Your task to perform on an android device: move an email to a new category in the gmail app Image 0: 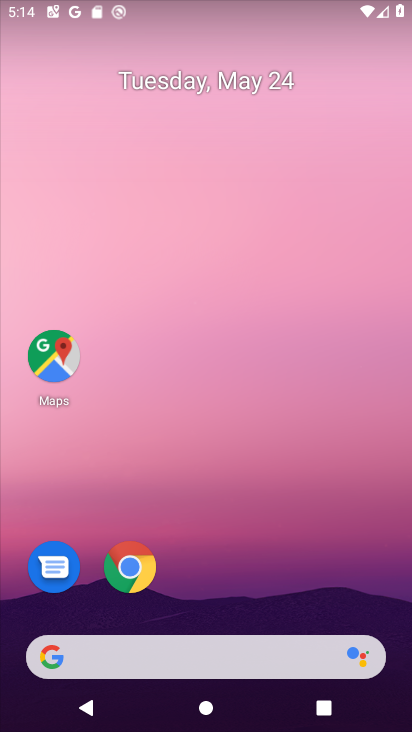
Step 0: drag from (235, 603) to (206, 206)
Your task to perform on an android device: move an email to a new category in the gmail app Image 1: 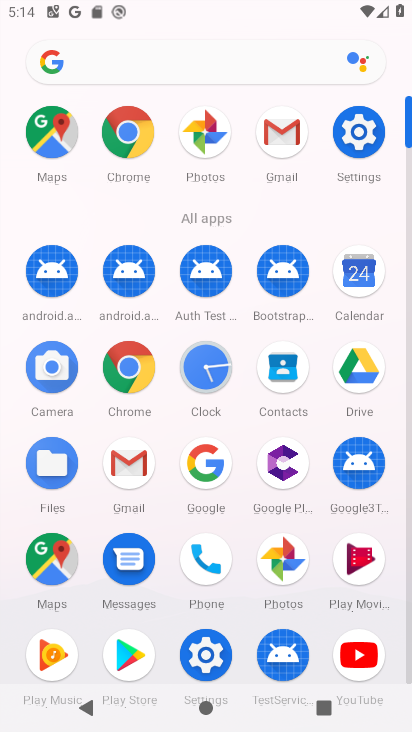
Step 1: click (281, 133)
Your task to perform on an android device: move an email to a new category in the gmail app Image 2: 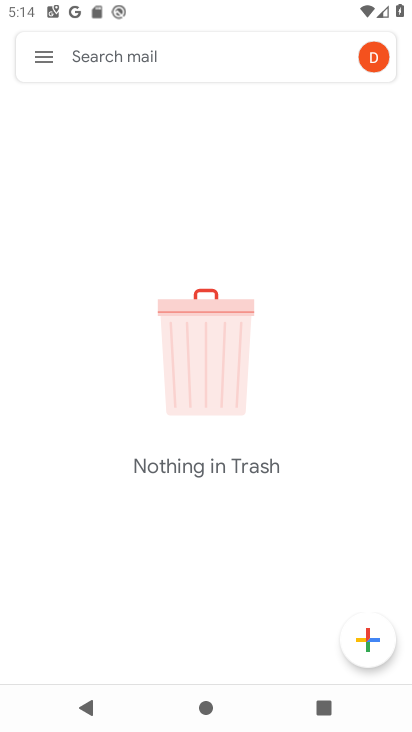
Step 2: click (48, 58)
Your task to perform on an android device: move an email to a new category in the gmail app Image 3: 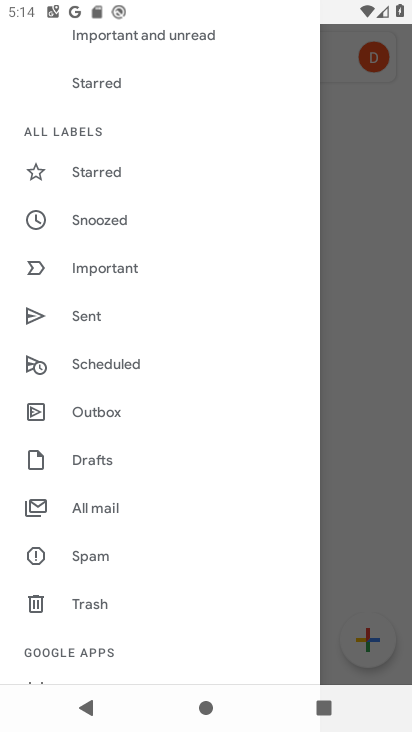
Step 3: click (84, 509)
Your task to perform on an android device: move an email to a new category in the gmail app Image 4: 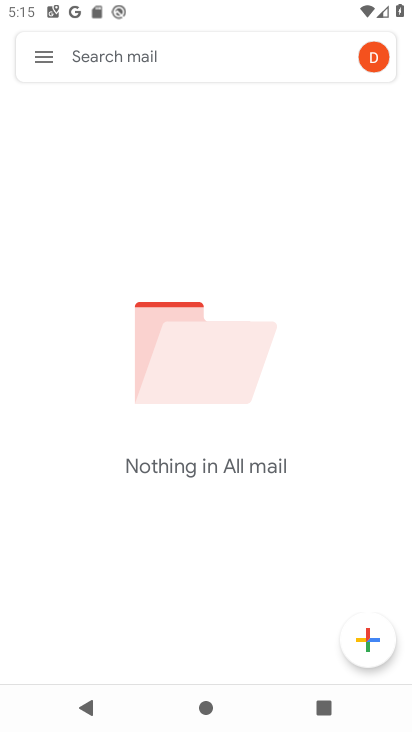
Step 4: task complete